Your task to perform on an android device: turn on wifi Image 0: 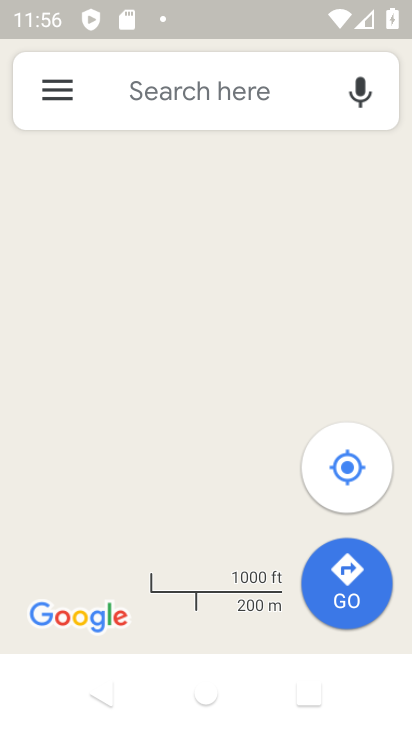
Step 0: press home button
Your task to perform on an android device: turn on wifi Image 1: 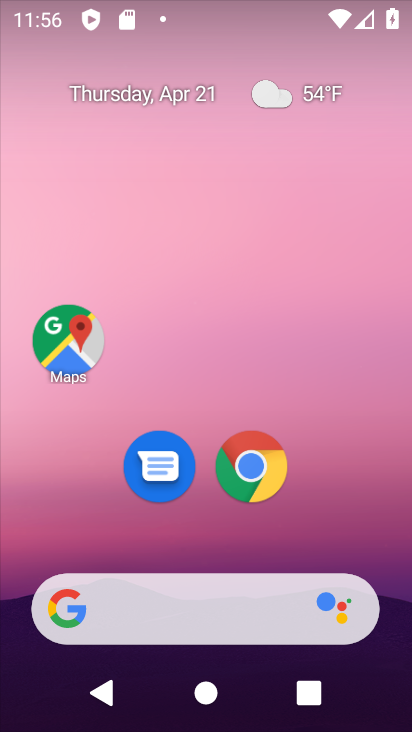
Step 1: drag from (344, 461) to (357, 124)
Your task to perform on an android device: turn on wifi Image 2: 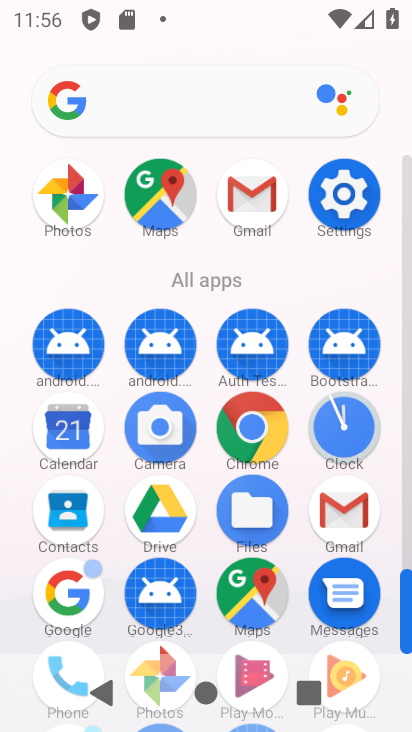
Step 2: click (352, 195)
Your task to perform on an android device: turn on wifi Image 3: 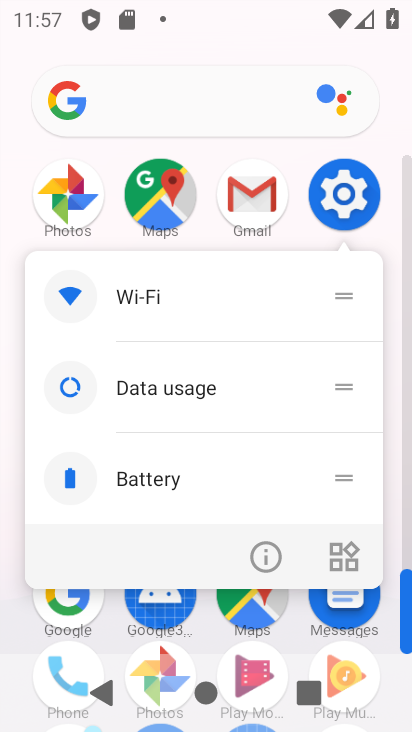
Step 3: click (152, 299)
Your task to perform on an android device: turn on wifi Image 4: 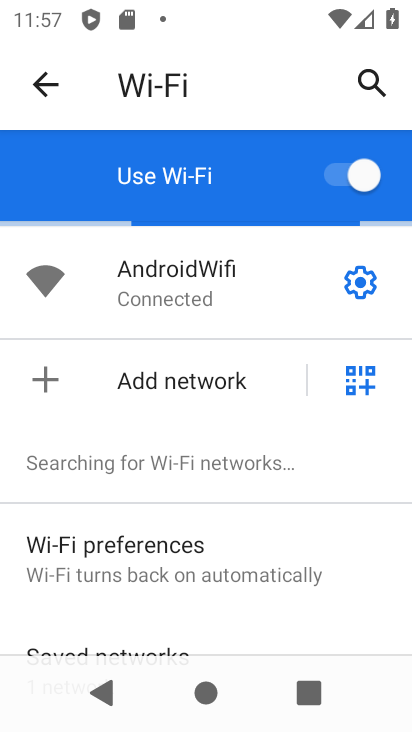
Step 4: task complete